Your task to perform on an android device: Open the calendar and show me this week's events? Image 0: 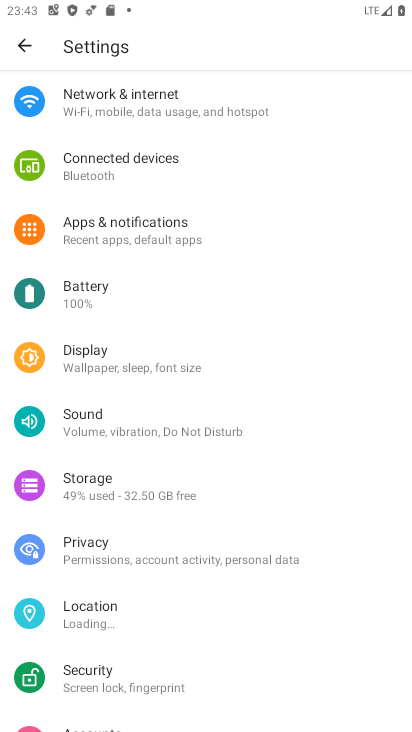
Step 0: press home button
Your task to perform on an android device: Open the calendar and show me this week's events? Image 1: 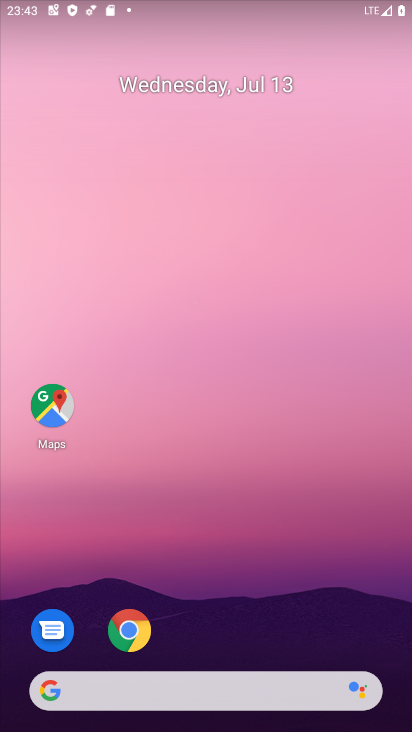
Step 1: drag from (264, 623) to (281, 137)
Your task to perform on an android device: Open the calendar and show me this week's events? Image 2: 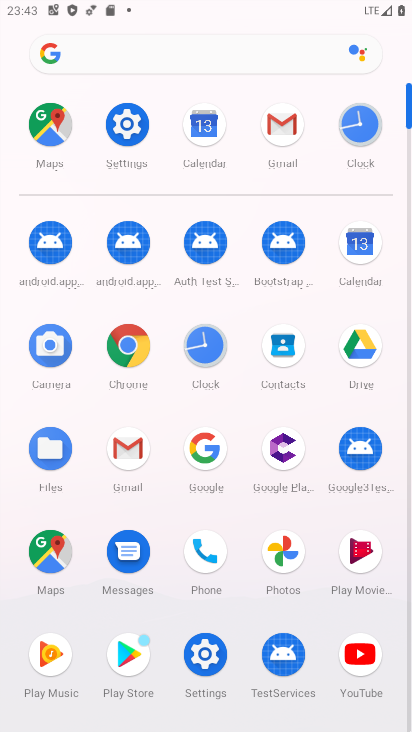
Step 2: click (359, 258)
Your task to perform on an android device: Open the calendar and show me this week's events? Image 3: 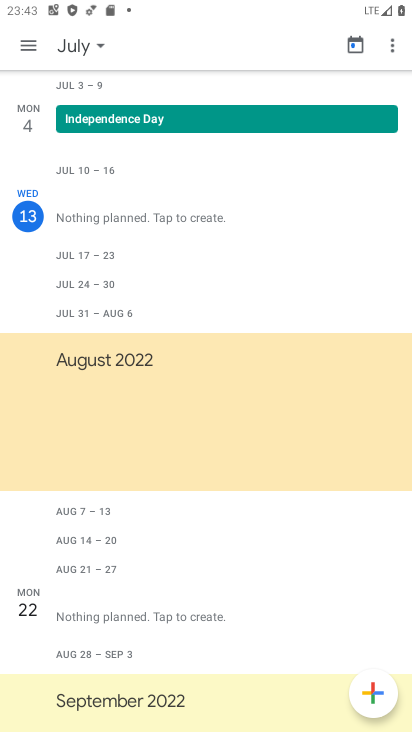
Step 3: click (98, 50)
Your task to perform on an android device: Open the calendar and show me this week's events? Image 4: 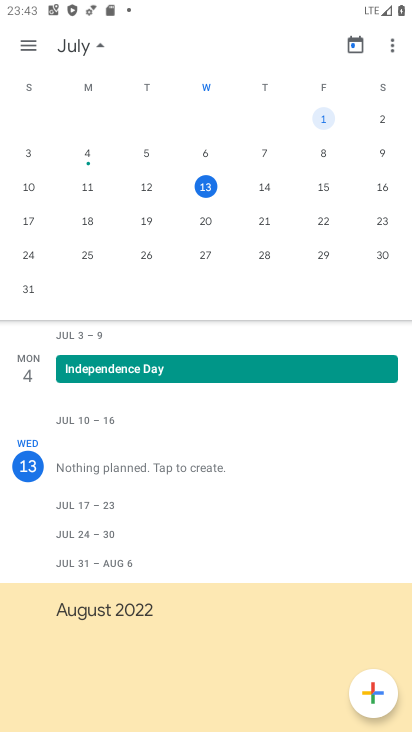
Step 4: click (211, 185)
Your task to perform on an android device: Open the calendar and show me this week's events? Image 5: 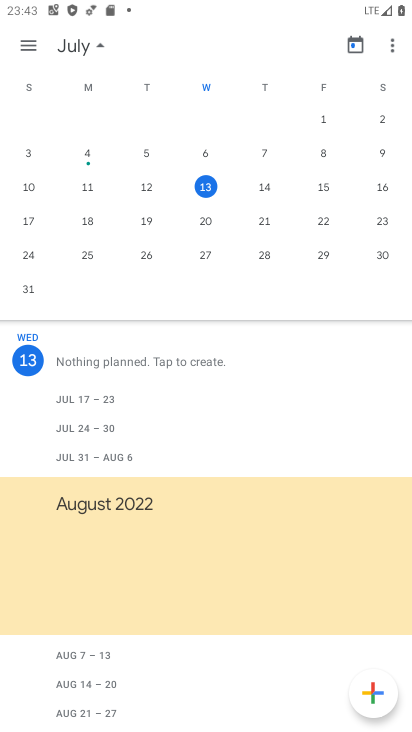
Step 5: task complete